Your task to perform on an android device: install app "Skype" Image 0: 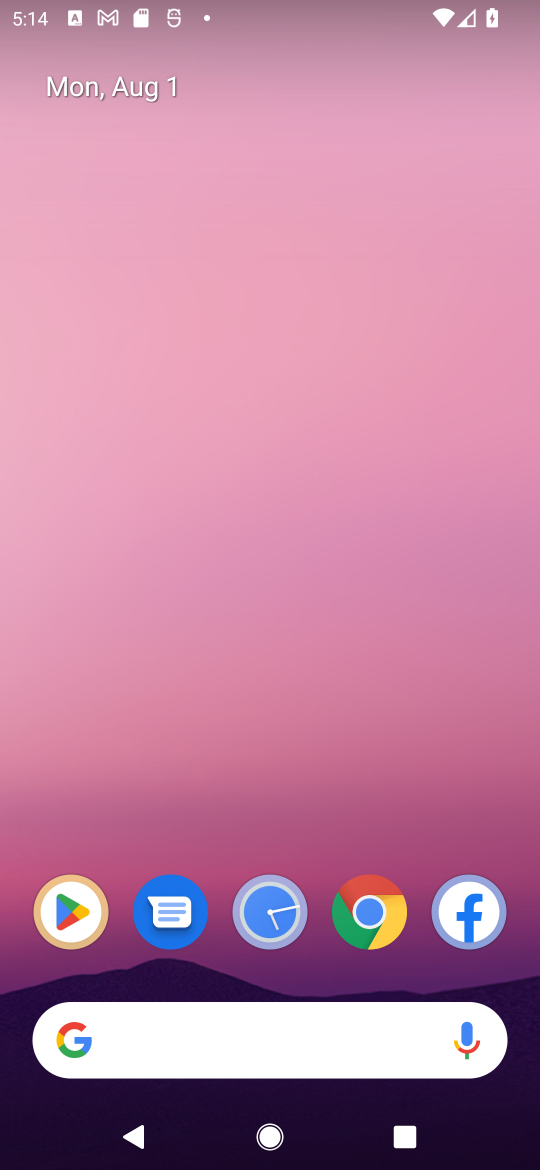
Step 0: click (60, 904)
Your task to perform on an android device: install app "Skype" Image 1: 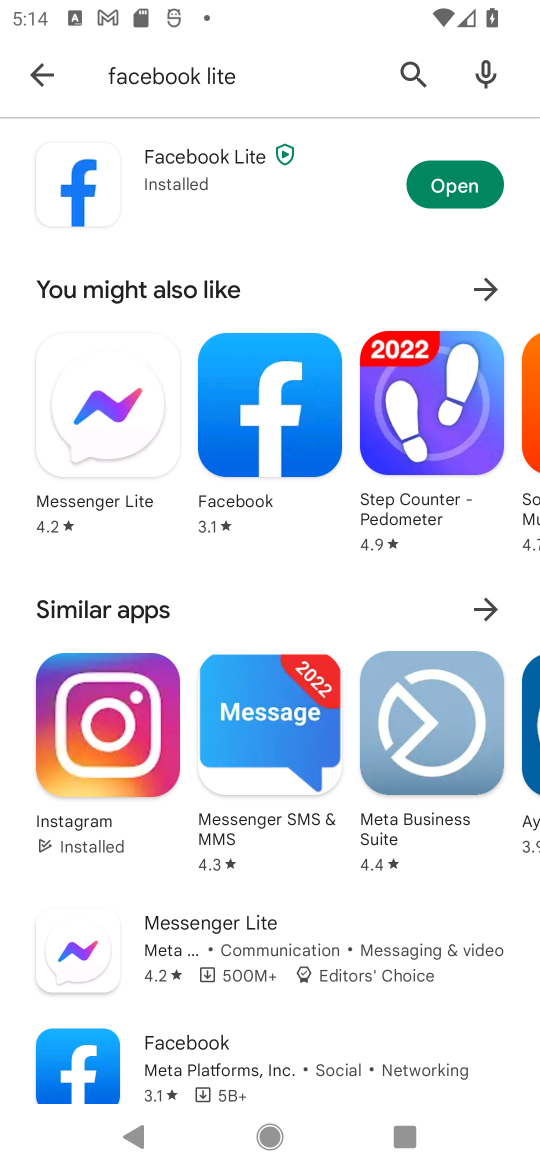
Step 1: click (426, 72)
Your task to perform on an android device: install app "Skype" Image 2: 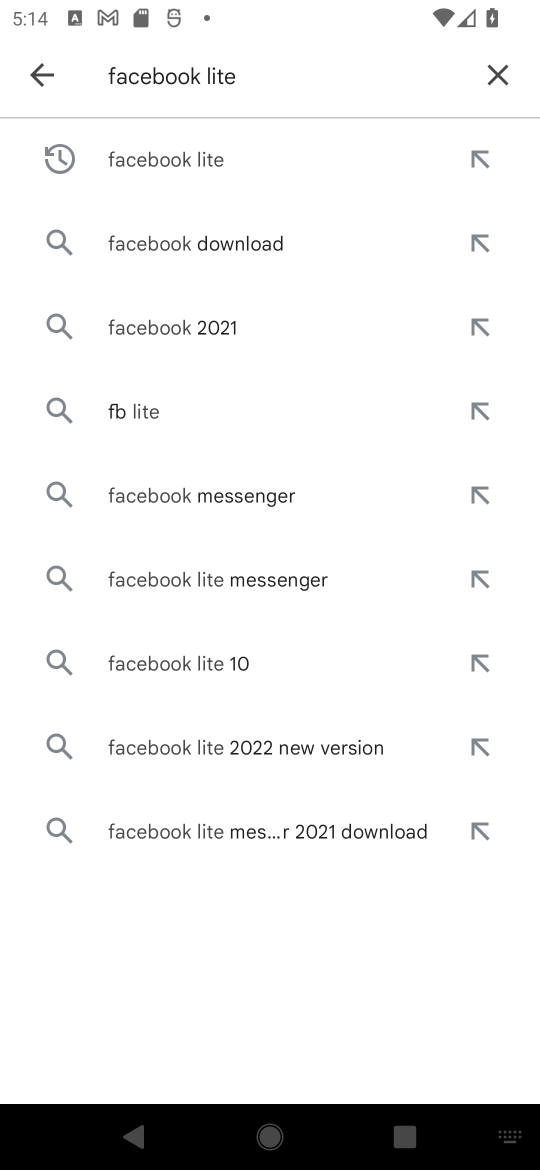
Step 2: click (497, 72)
Your task to perform on an android device: install app "Skype" Image 3: 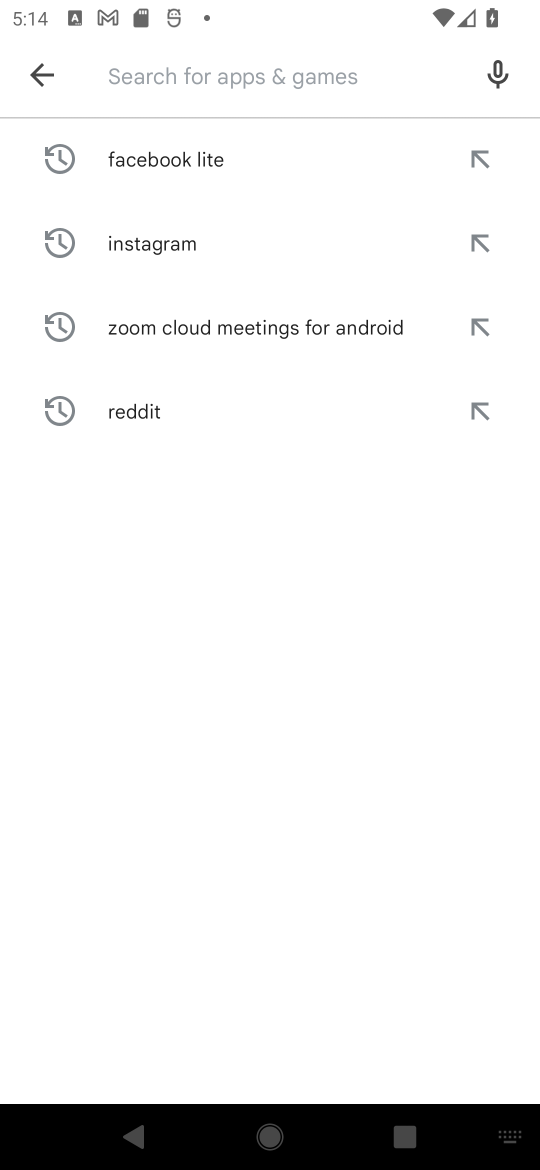
Step 3: type "Skype"
Your task to perform on an android device: install app "Skype" Image 4: 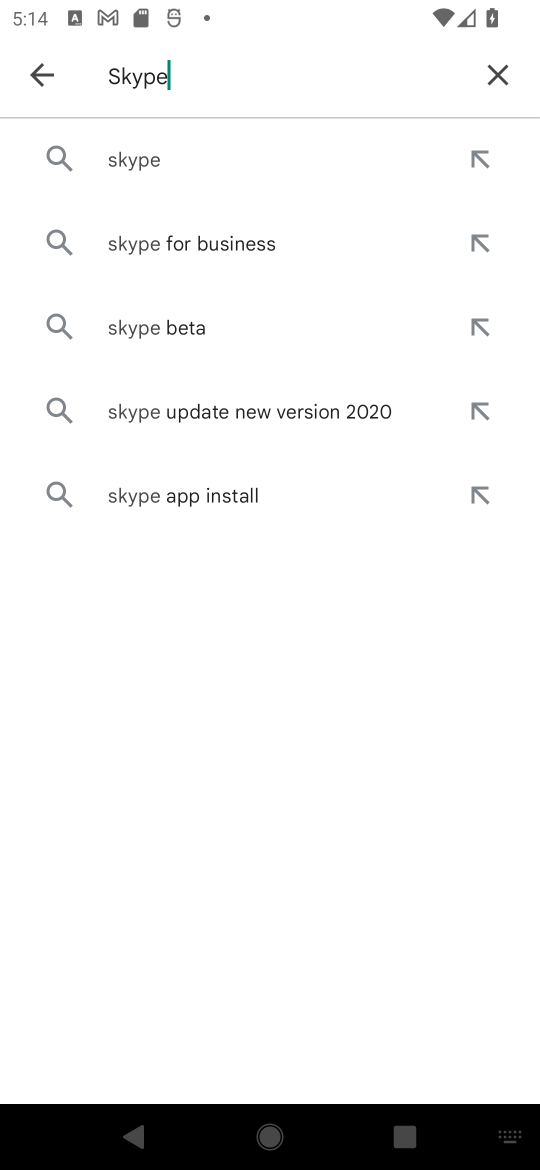
Step 4: click (153, 174)
Your task to perform on an android device: install app "Skype" Image 5: 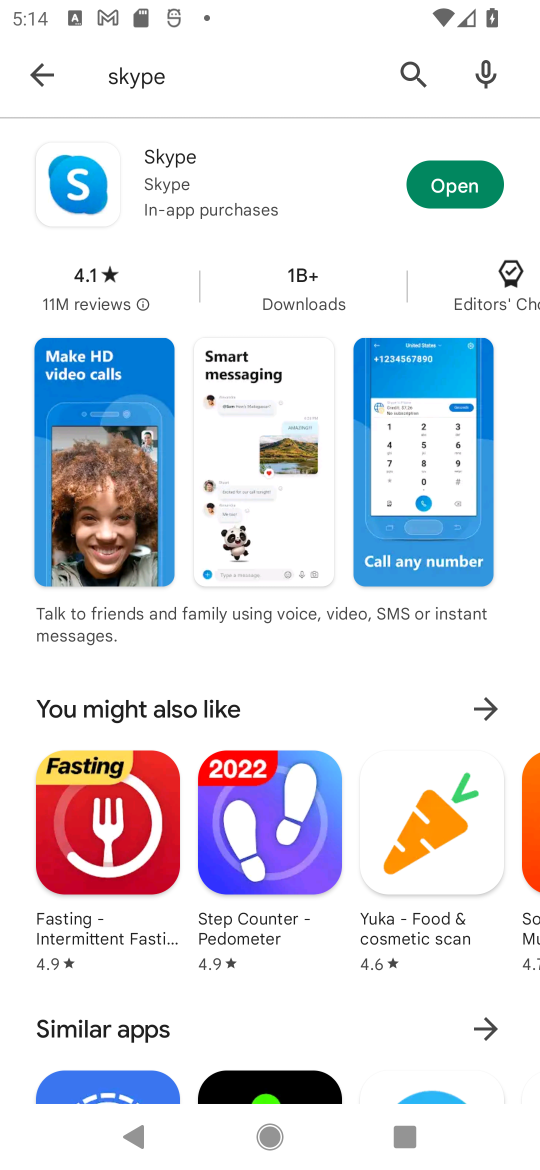
Step 5: task complete